Your task to perform on an android device: open sync settings in chrome Image 0: 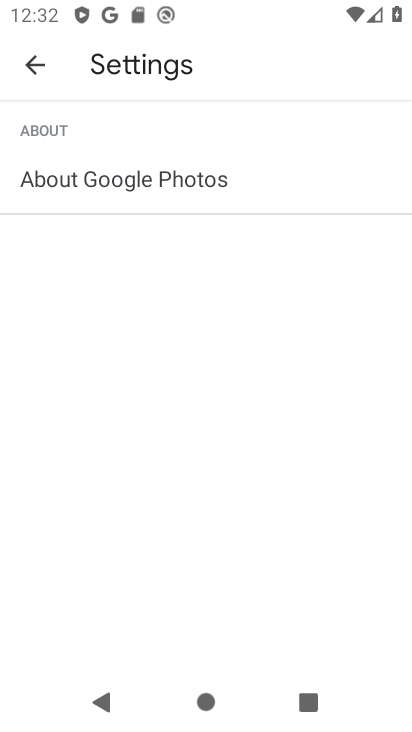
Step 0: drag from (312, 105) to (326, 56)
Your task to perform on an android device: open sync settings in chrome Image 1: 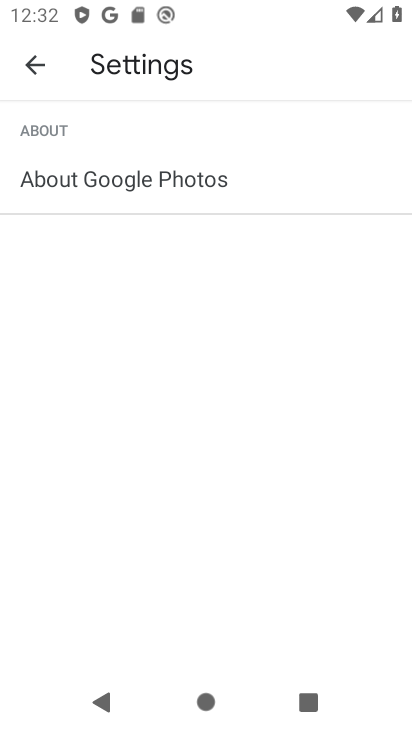
Step 1: press home button
Your task to perform on an android device: open sync settings in chrome Image 2: 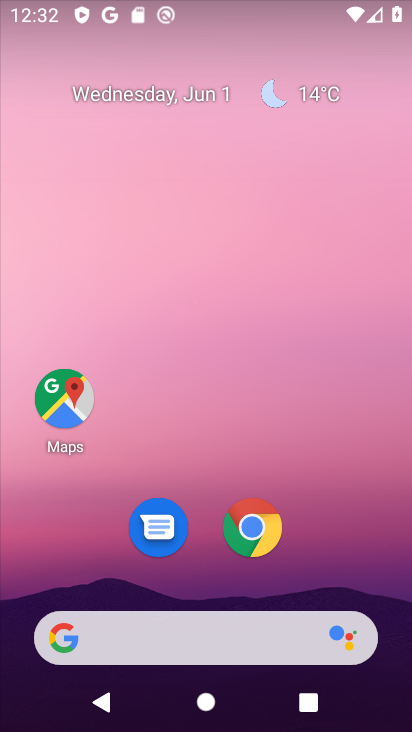
Step 2: drag from (285, 624) to (368, 45)
Your task to perform on an android device: open sync settings in chrome Image 3: 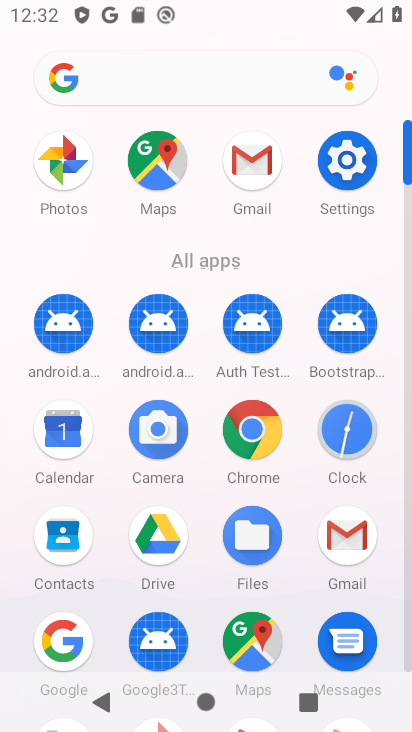
Step 3: click (256, 471)
Your task to perform on an android device: open sync settings in chrome Image 4: 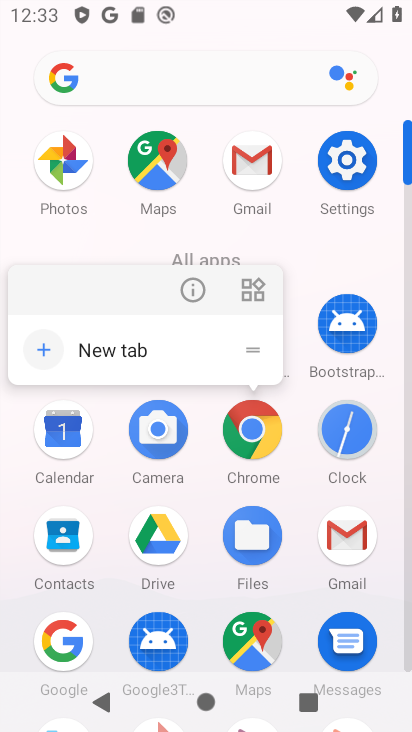
Step 4: click (238, 452)
Your task to perform on an android device: open sync settings in chrome Image 5: 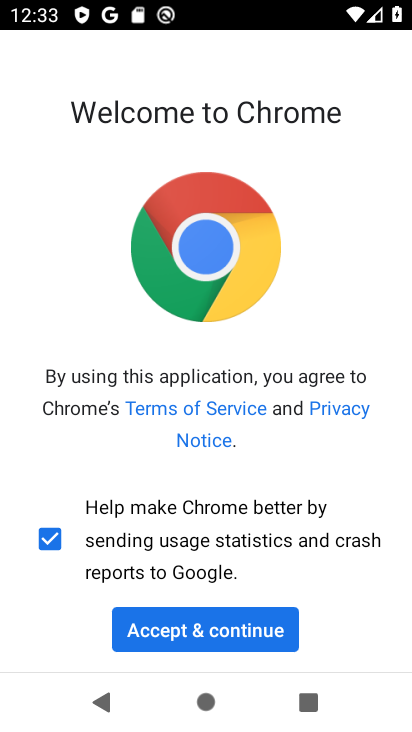
Step 5: click (171, 628)
Your task to perform on an android device: open sync settings in chrome Image 6: 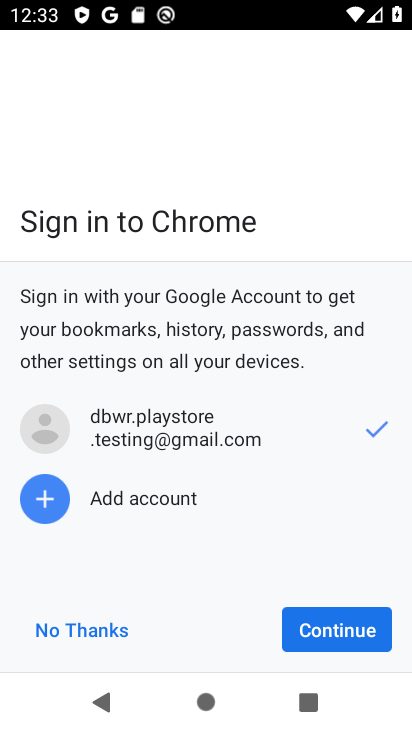
Step 6: click (306, 640)
Your task to perform on an android device: open sync settings in chrome Image 7: 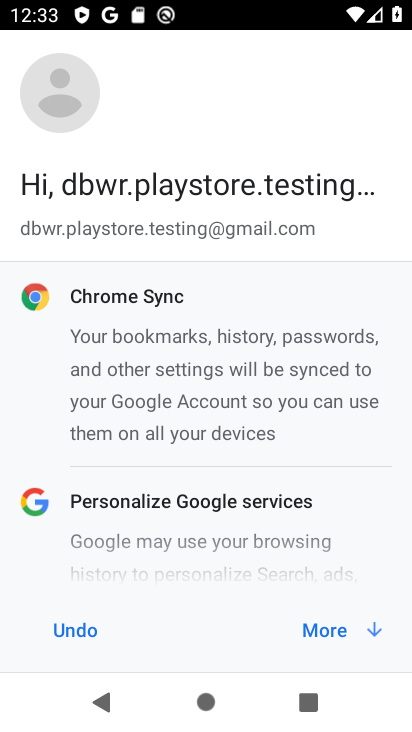
Step 7: click (321, 638)
Your task to perform on an android device: open sync settings in chrome Image 8: 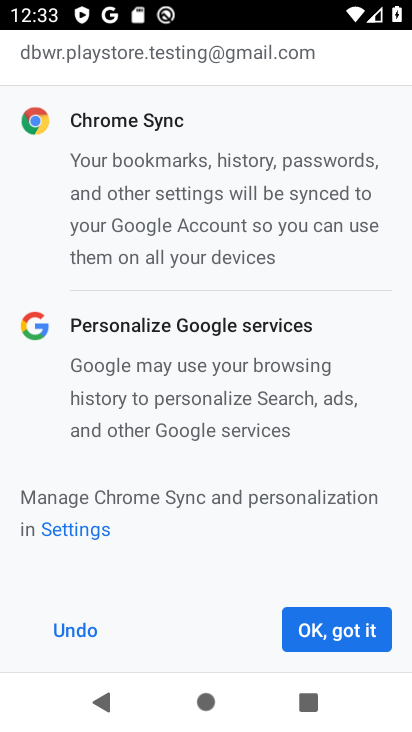
Step 8: click (338, 640)
Your task to perform on an android device: open sync settings in chrome Image 9: 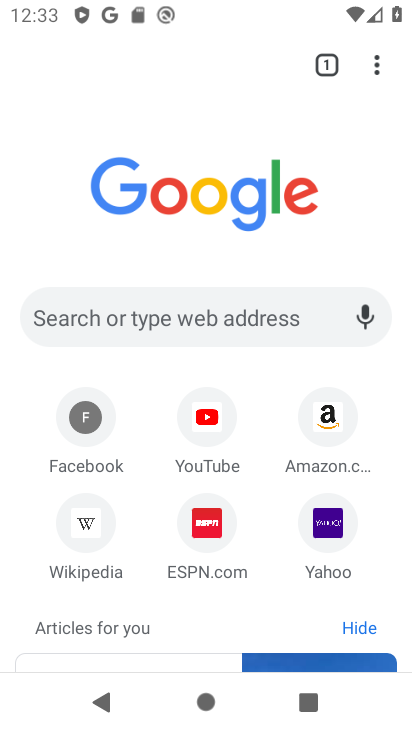
Step 9: click (373, 65)
Your task to perform on an android device: open sync settings in chrome Image 10: 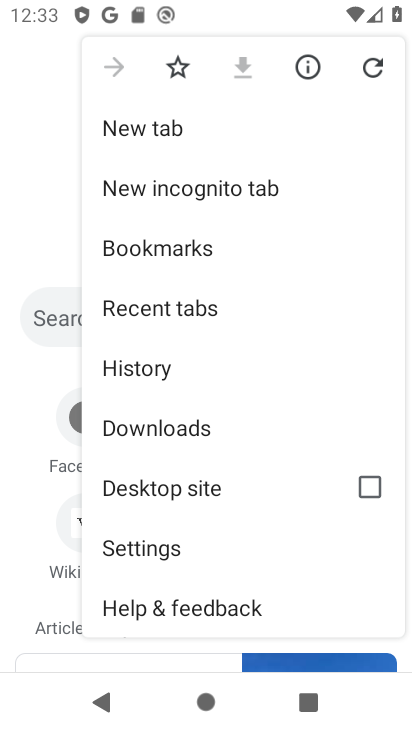
Step 10: click (156, 553)
Your task to perform on an android device: open sync settings in chrome Image 11: 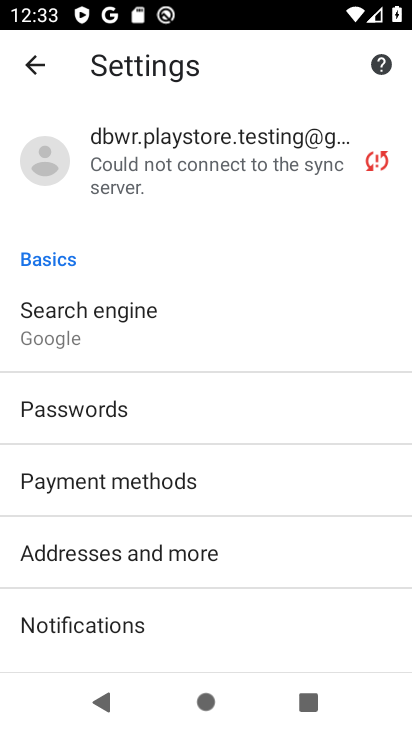
Step 11: click (232, 174)
Your task to perform on an android device: open sync settings in chrome Image 12: 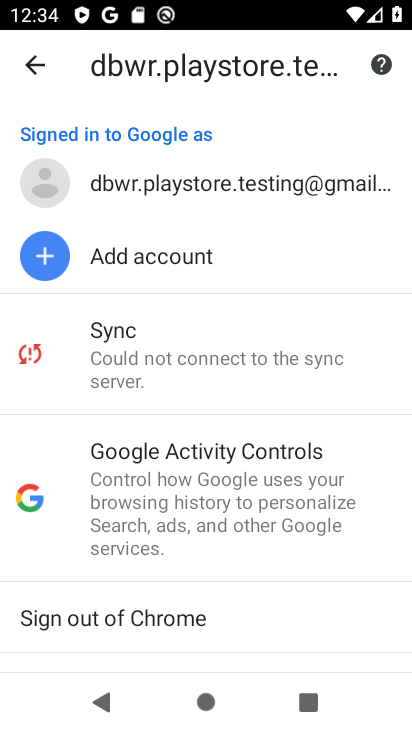
Step 12: task complete